Your task to perform on an android device: turn off translation in the chrome app Image 0: 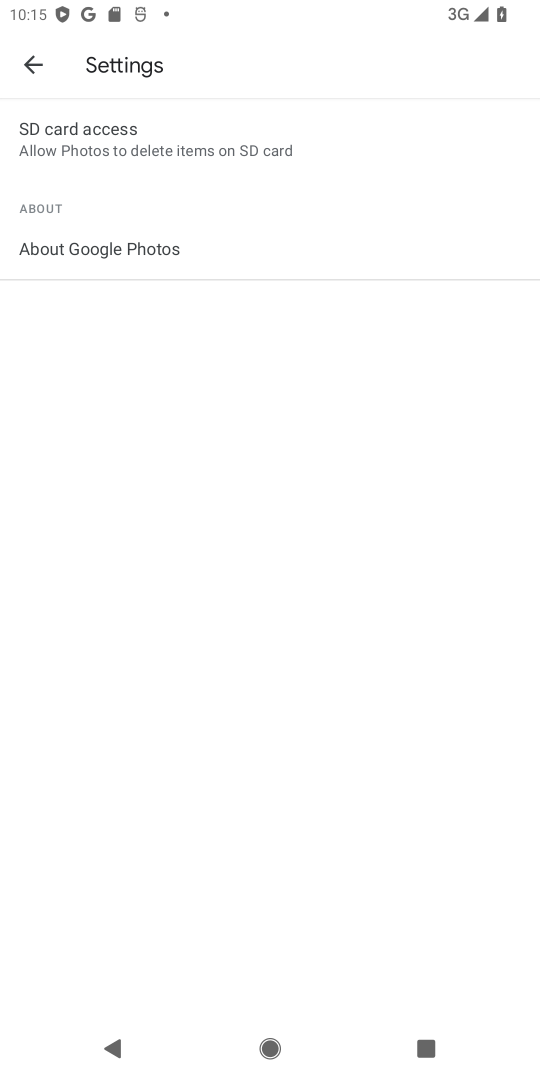
Step 0: press home button
Your task to perform on an android device: turn off translation in the chrome app Image 1: 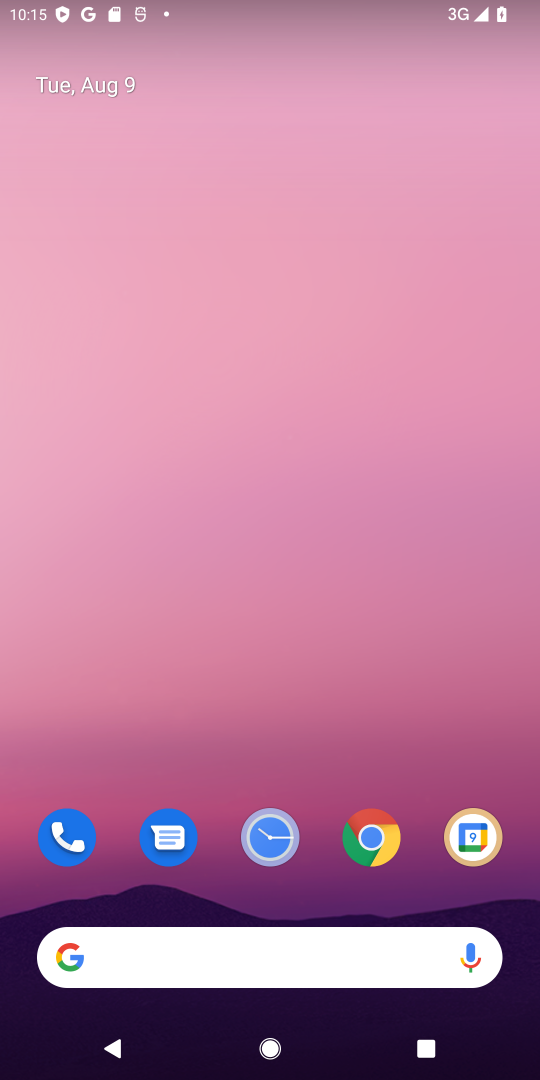
Step 1: click (370, 836)
Your task to perform on an android device: turn off translation in the chrome app Image 2: 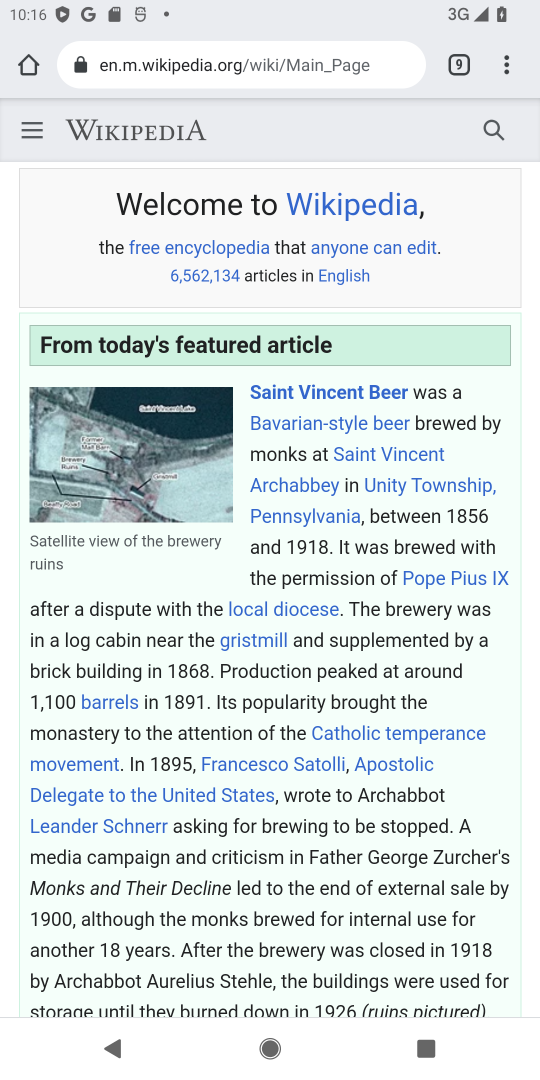
Step 2: click (508, 66)
Your task to perform on an android device: turn off translation in the chrome app Image 3: 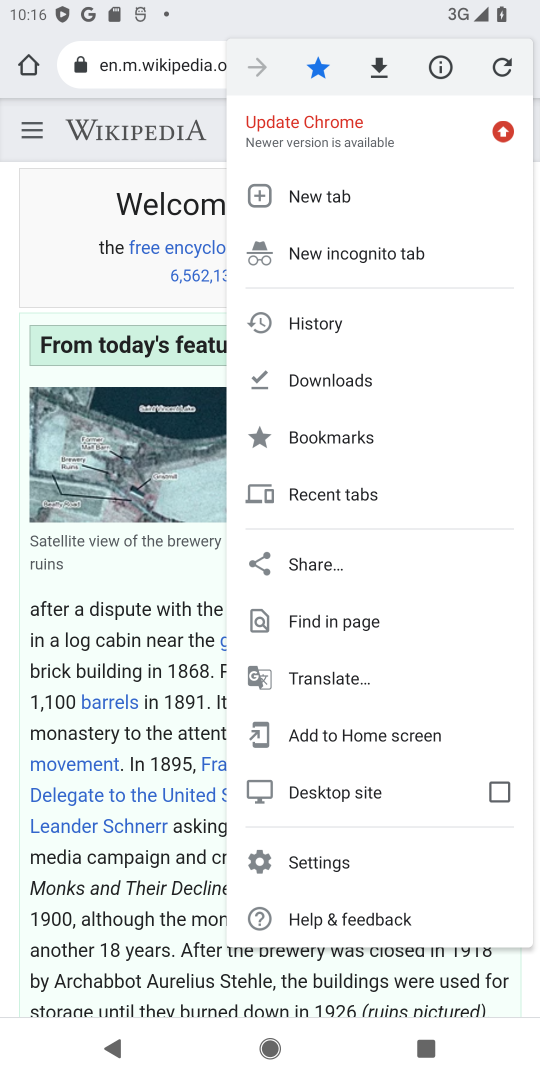
Step 3: click (314, 854)
Your task to perform on an android device: turn off translation in the chrome app Image 4: 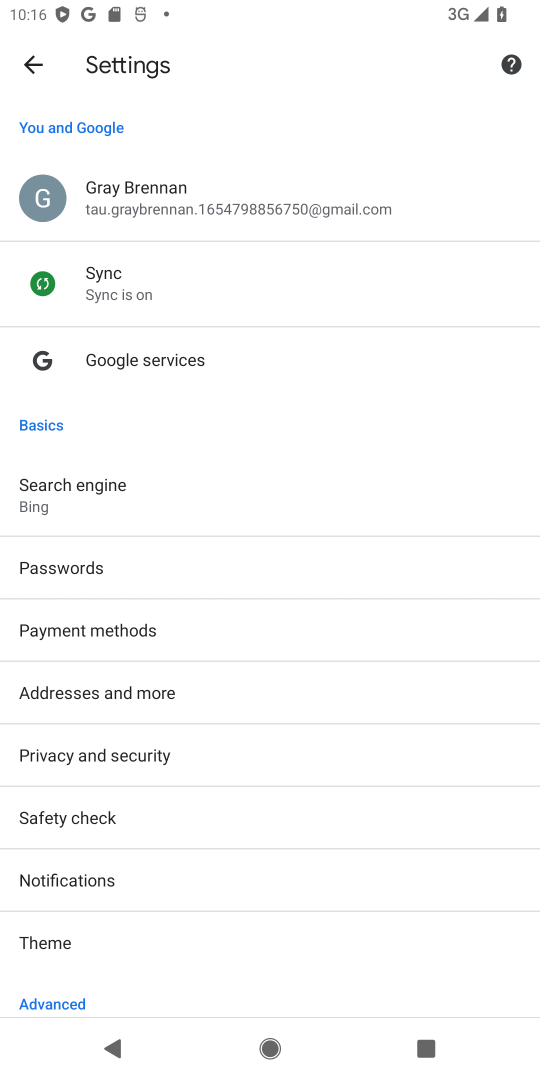
Step 4: drag from (91, 940) to (72, 666)
Your task to perform on an android device: turn off translation in the chrome app Image 5: 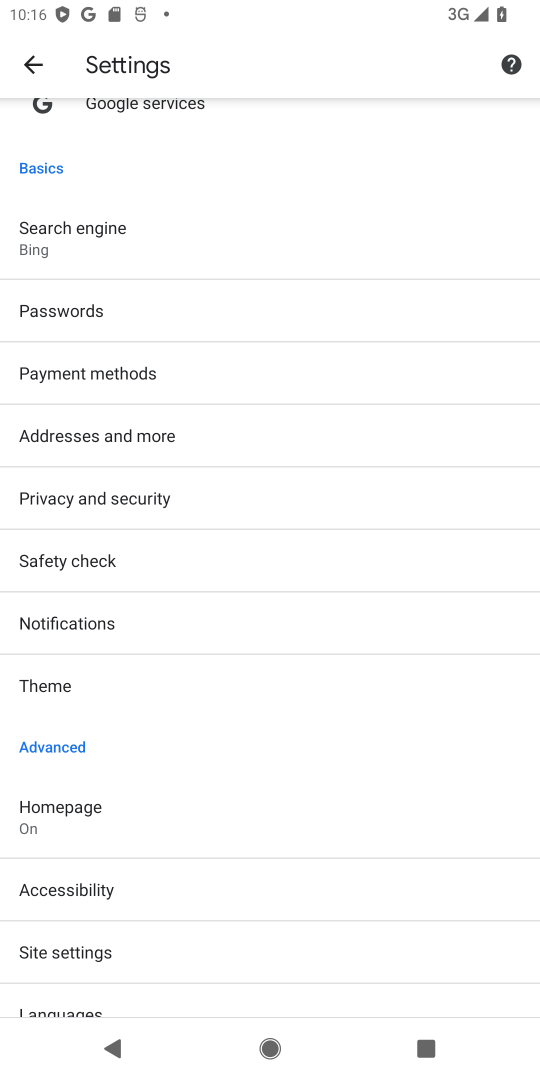
Step 5: drag from (167, 909) to (147, 570)
Your task to perform on an android device: turn off translation in the chrome app Image 6: 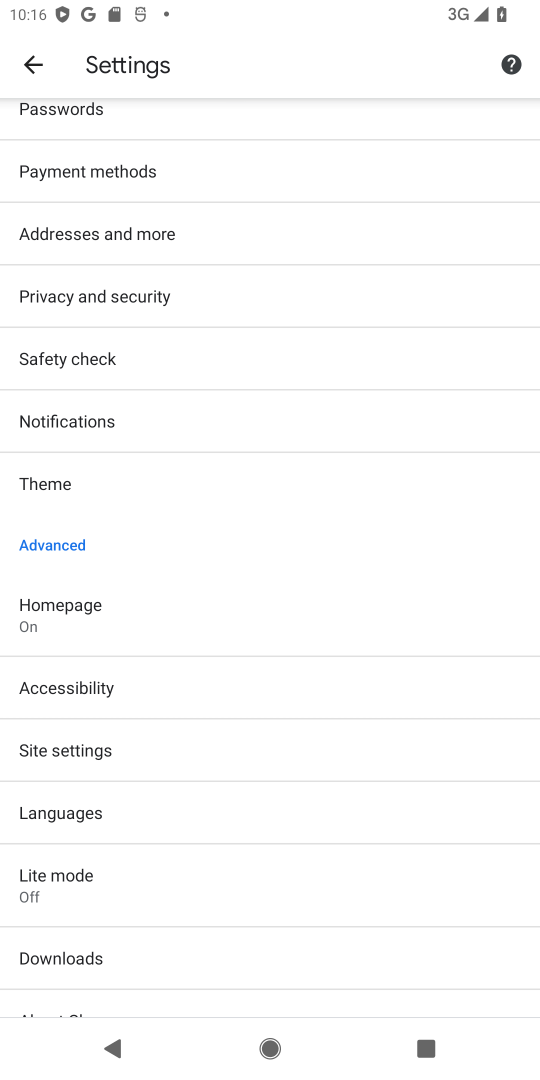
Step 6: click (93, 812)
Your task to perform on an android device: turn off translation in the chrome app Image 7: 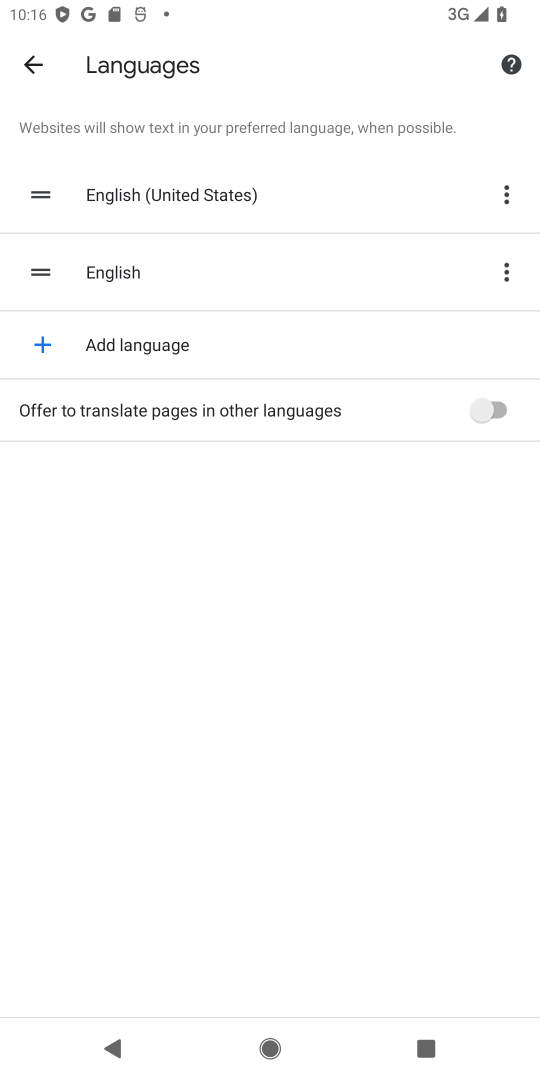
Step 7: task complete